Your task to perform on an android device: Open CNN.com Image 0: 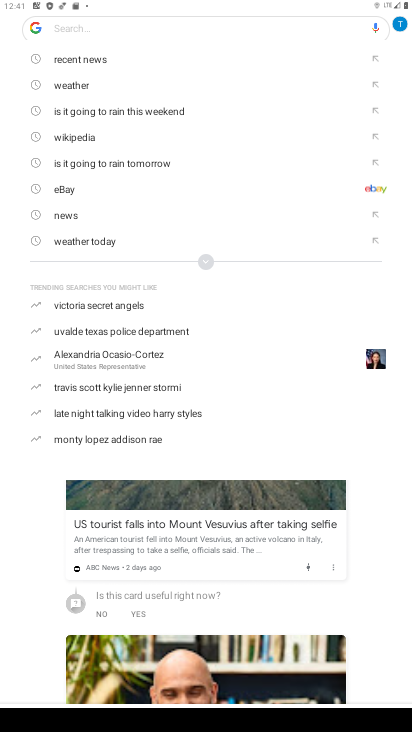
Step 0: press back button
Your task to perform on an android device: Open CNN.com Image 1: 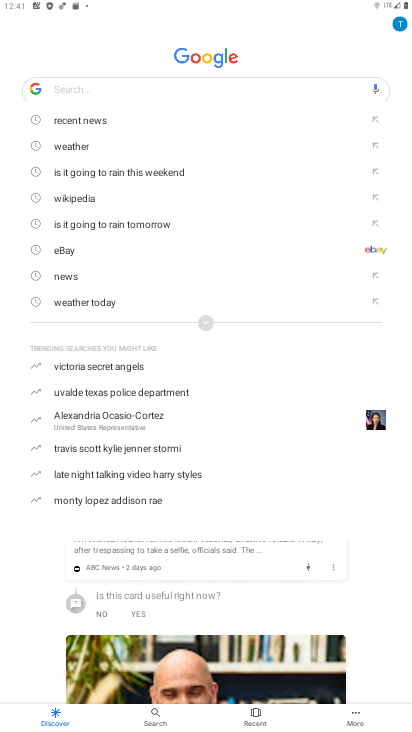
Step 1: press back button
Your task to perform on an android device: Open CNN.com Image 2: 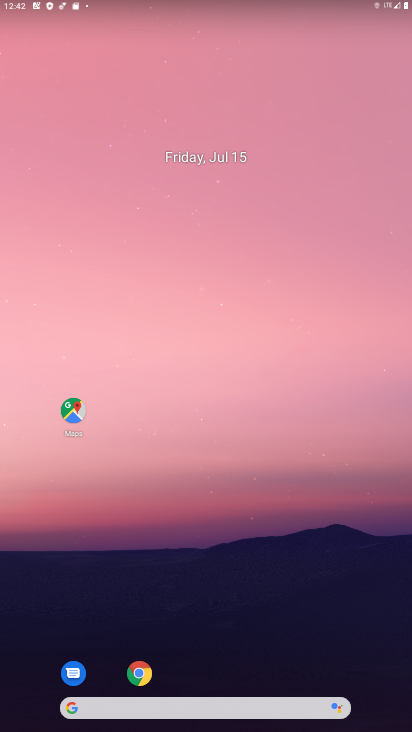
Step 2: click (147, 674)
Your task to perform on an android device: Open CNN.com Image 3: 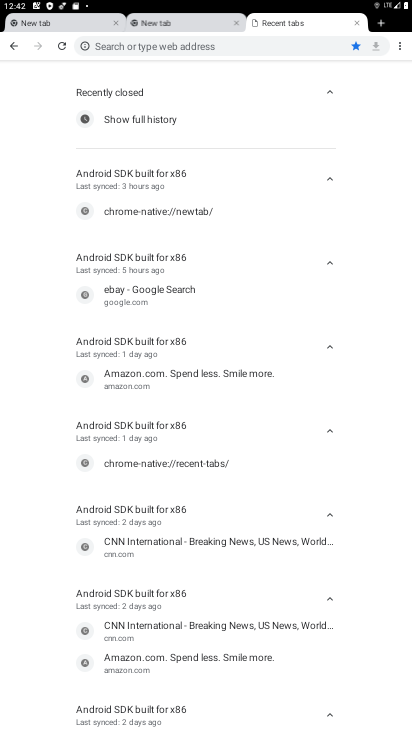
Step 3: click (14, 42)
Your task to perform on an android device: Open CNN.com Image 4: 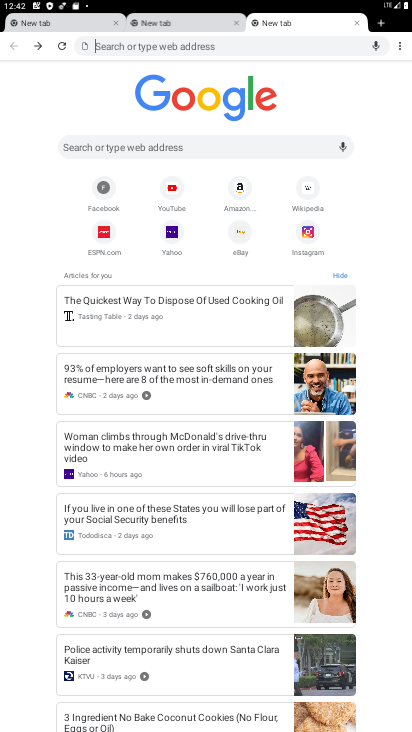
Step 4: click (178, 152)
Your task to perform on an android device: Open CNN.com Image 5: 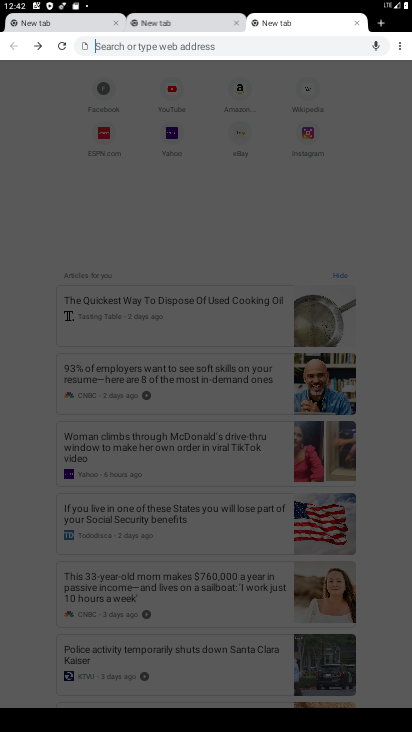
Step 5: type "CNN.com"
Your task to perform on an android device: Open CNN.com Image 6: 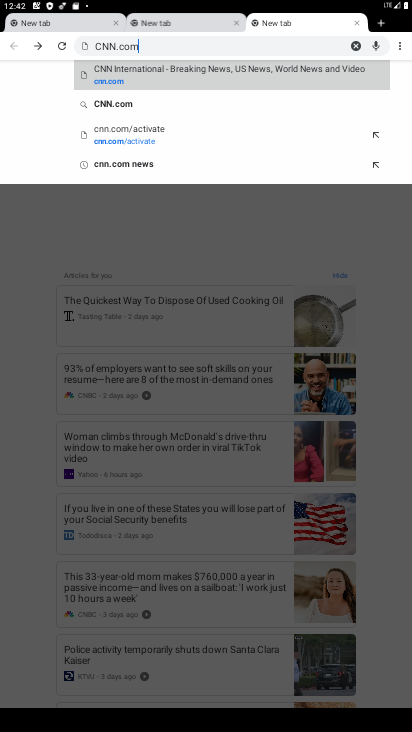
Step 6: click (124, 106)
Your task to perform on an android device: Open CNN.com Image 7: 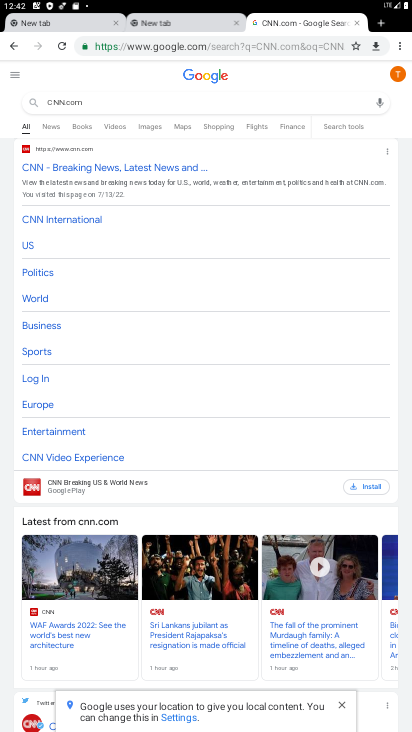
Step 7: task complete